Your task to perform on an android device: Open the phone app and click the voicemail tab. Image 0: 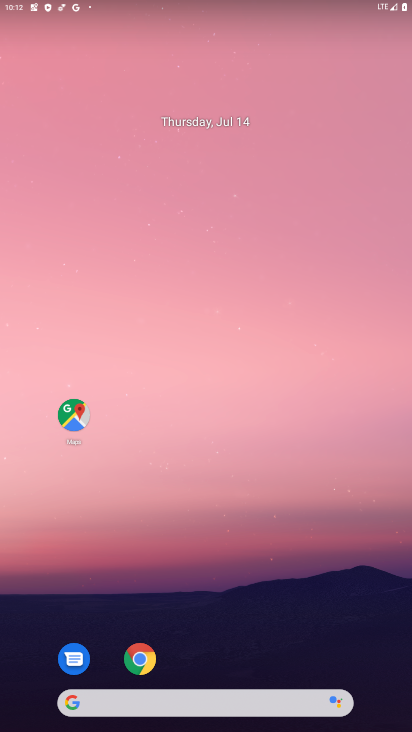
Step 0: drag from (281, 639) to (244, 150)
Your task to perform on an android device: Open the phone app and click the voicemail tab. Image 1: 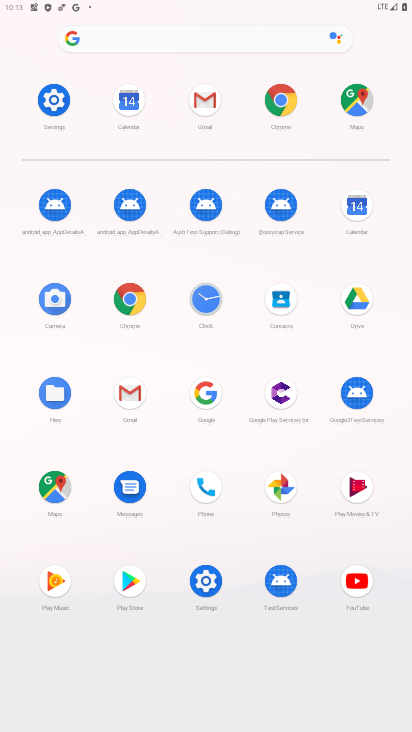
Step 1: click (205, 489)
Your task to perform on an android device: Open the phone app and click the voicemail tab. Image 2: 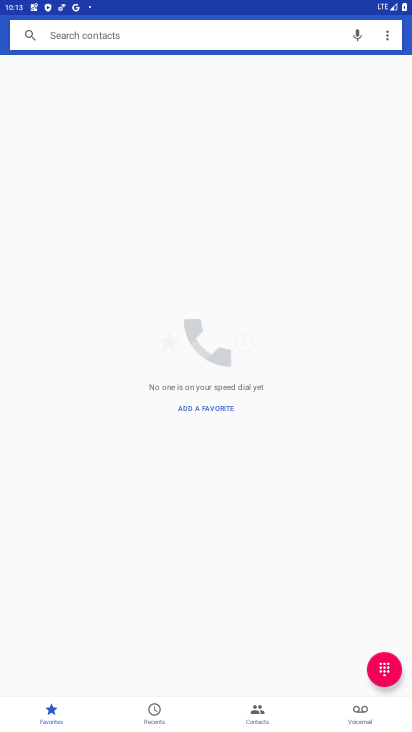
Step 2: click (377, 721)
Your task to perform on an android device: Open the phone app and click the voicemail tab. Image 3: 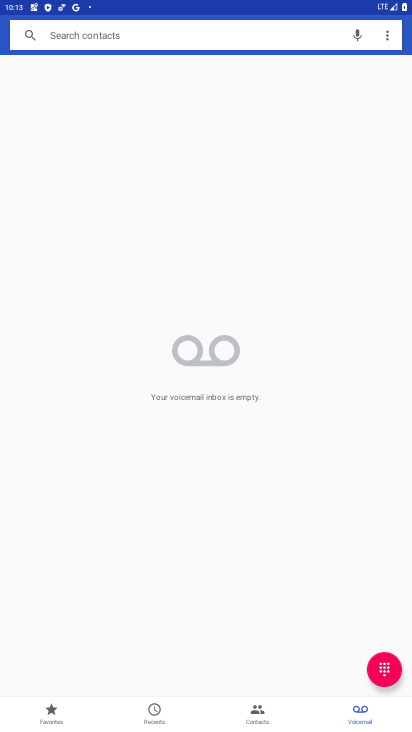
Step 3: click (367, 712)
Your task to perform on an android device: Open the phone app and click the voicemail tab. Image 4: 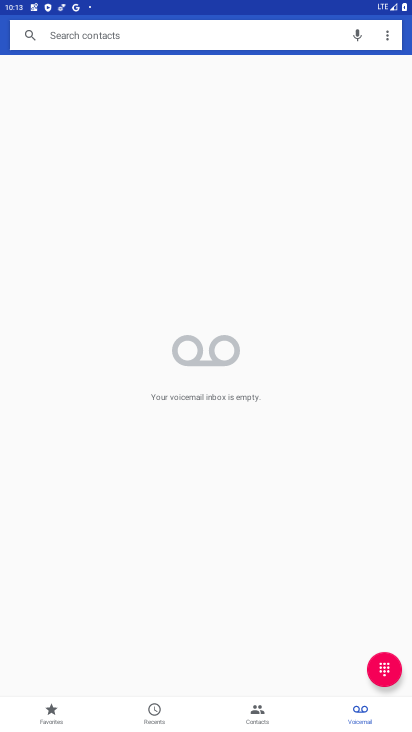
Step 4: task complete